Your task to perform on an android device: Set the phone to "Do not disturb". Image 0: 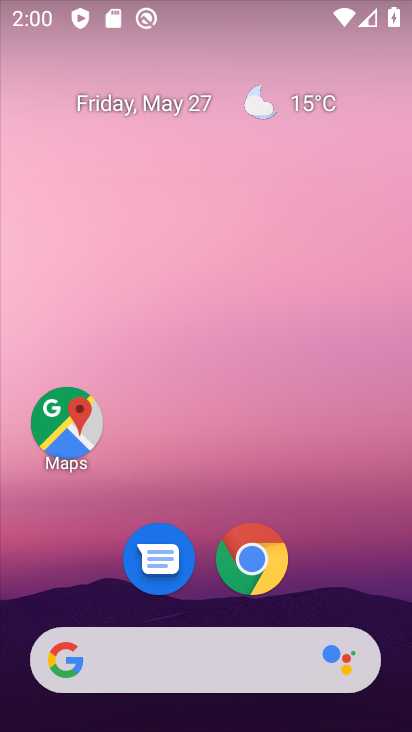
Step 0: drag from (263, 673) to (292, 44)
Your task to perform on an android device: Set the phone to "Do not disturb". Image 1: 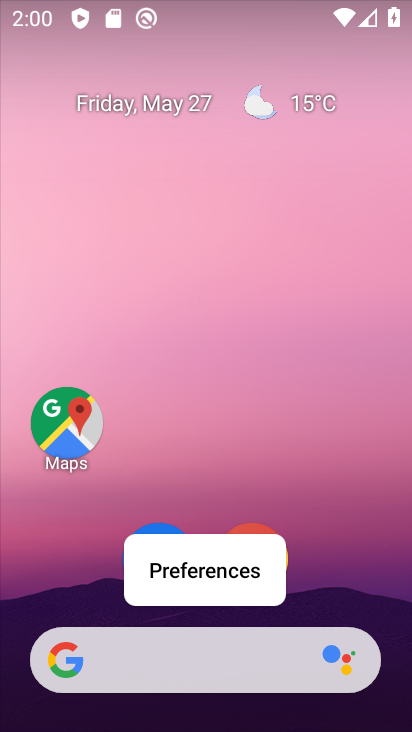
Step 1: drag from (281, 611) to (312, 0)
Your task to perform on an android device: Set the phone to "Do not disturb". Image 2: 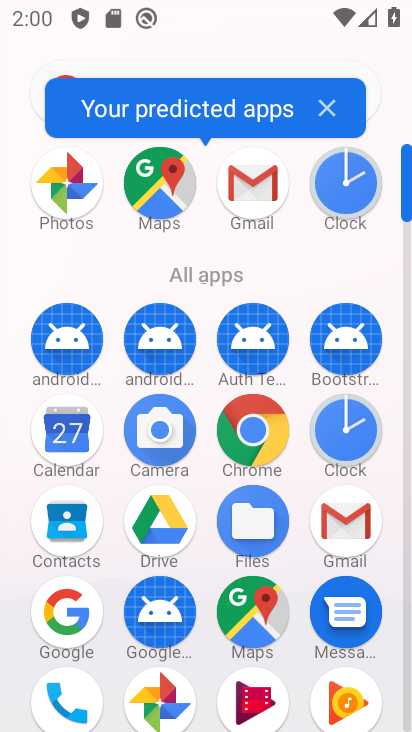
Step 2: drag from (285, 650) to (303, 233)
Your task to perform on an android device: Set the phone to "Do not disturb". Image 3: 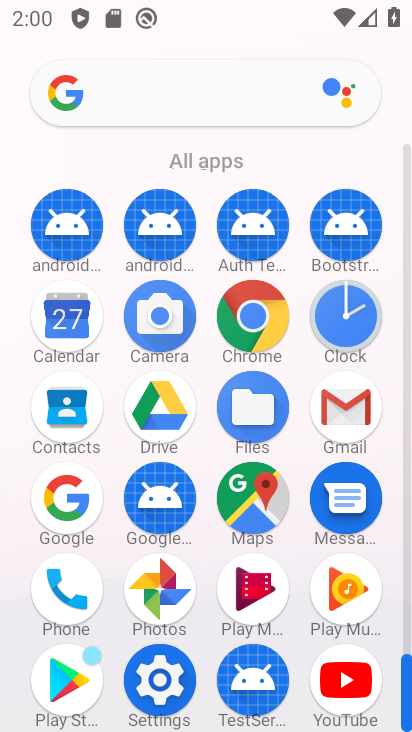
Step 3: click (162, 667)
Your task to perform on an android device: Set the phone to "Do not disturb". Image 4: 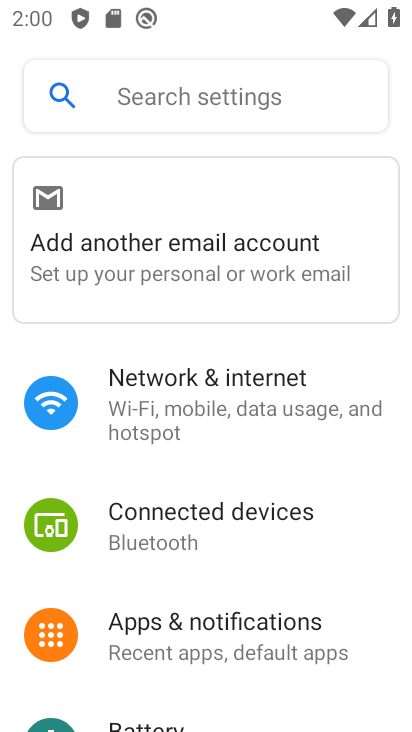
Step 4: drag from (255, 671) to (340, 64)
Your task to perform on an android device: Set the phone to "Do not disturb". Image 5: 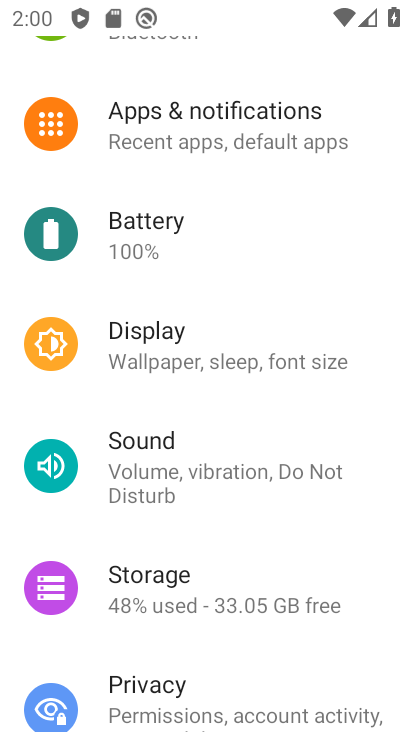
Step 5: click (241, 486)
Your task to perform on an android device: Set the phone to "Do not disturb". Image 6: 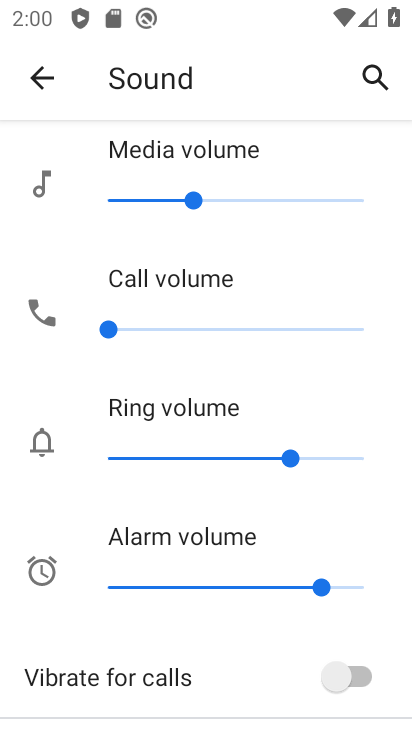
Step 6: drag from (225, 660) to (318, 55)
Your task to perform on an android device: Set the phone to "Do not disturb". Image 7: 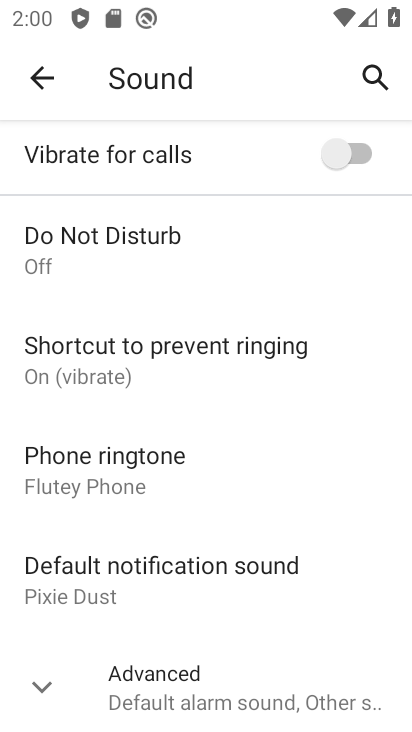
Step 7: click (156, 300)
Your task to perform on an android device: Set the phone to "Do not disturb". Image 8: 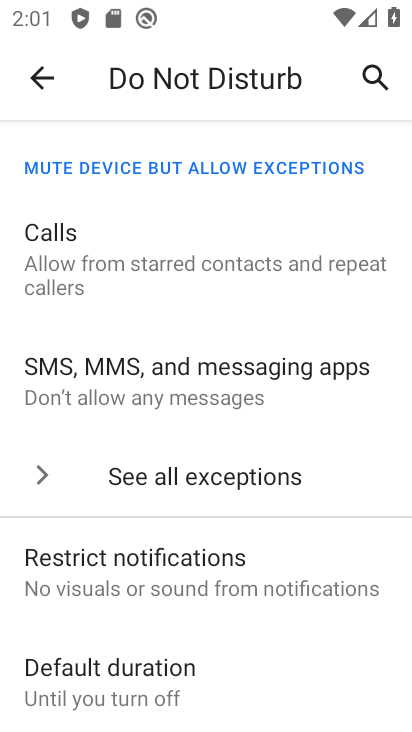
Step 8: drag from (154, 685) to (233, 146)
Your task to perform on an android device: Set the phone to "Do not disturb". Image 9: 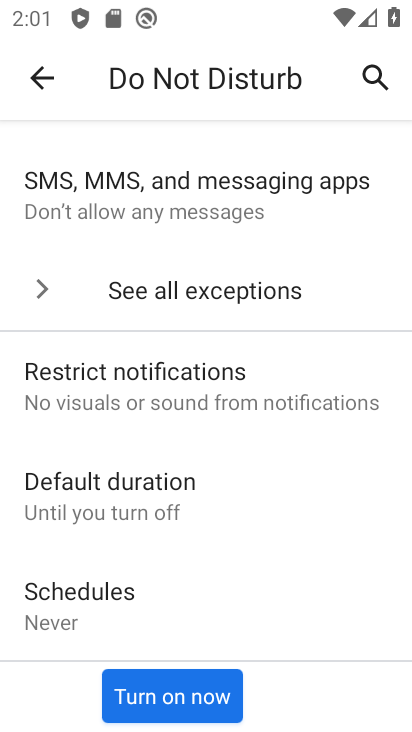
Step 9: click (199, 697)
Your task to perform on an android device: Set the phone to "Do not disturb". Image 10: 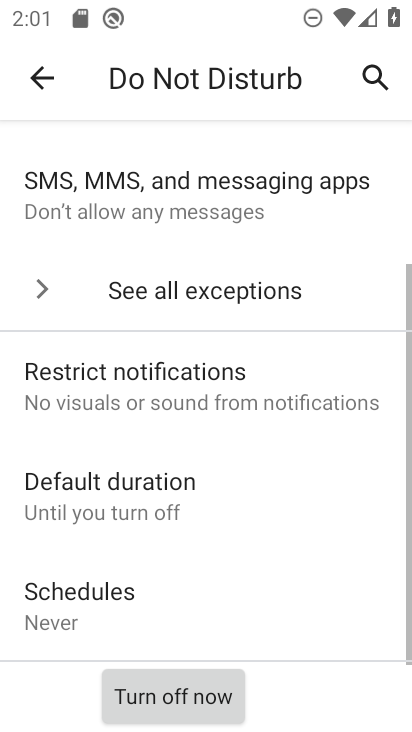
Step 10: task complete